Your task to perform on an android device: Open accessibility settings Image 0: 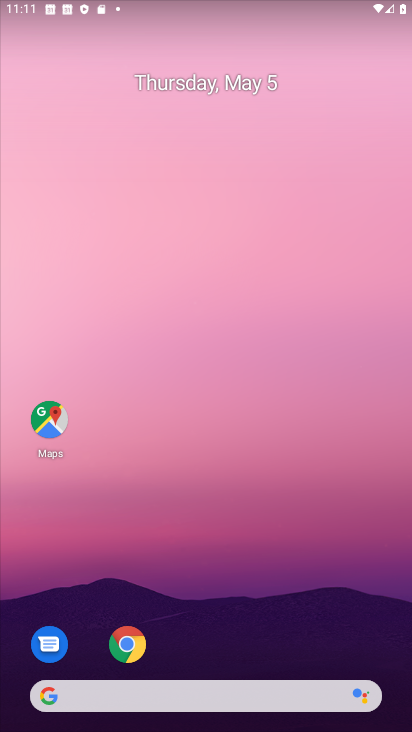
Step 0: drag from (249, 653) to (254, 127)
Your task to perform on an android device: Open accessibility settings Image 1: 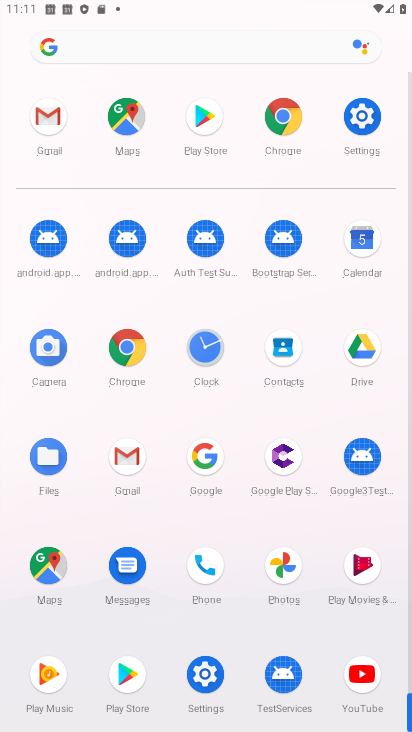
Step 1: click (206, 680)
Your task to perform on an android device: Open accessibility settings Image 2: 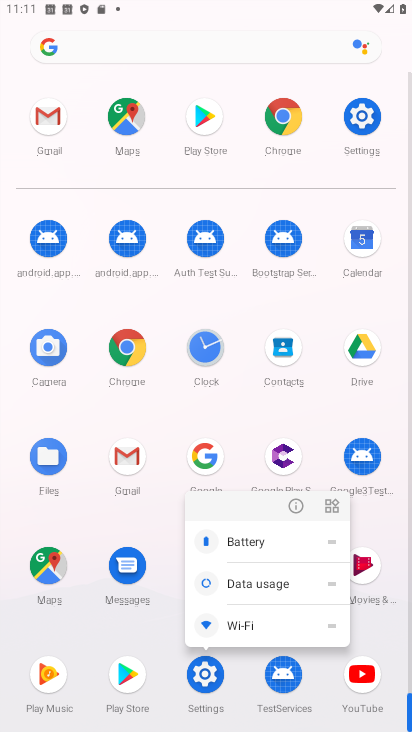
Step 2: click (284, 507)
Your task to perform on an android device: Open accessibility settings Image 3: 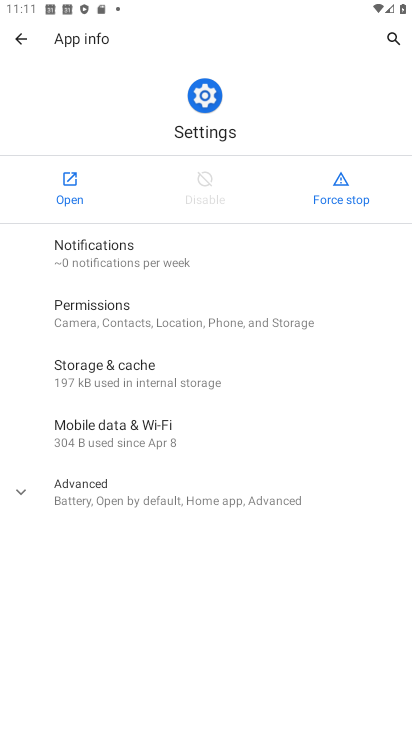
Step 3: drag from (175, 574) to (210, 249)
Your task to perform on an android device: Open accessibility settings Image 4: 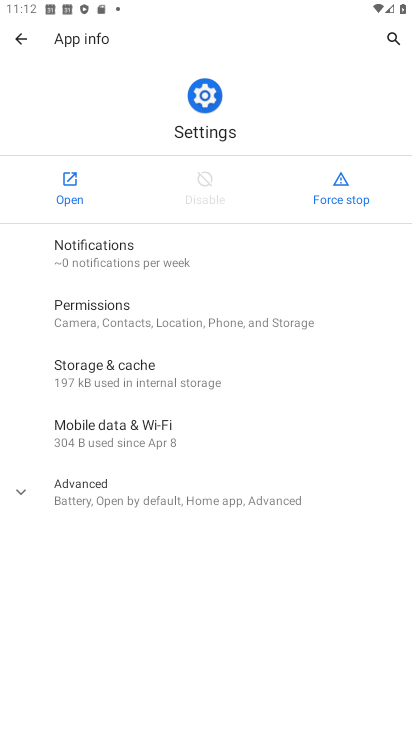
Step 4: click (67, 189)
Your task to perform on an android device: Open accessibility settings Image 5: 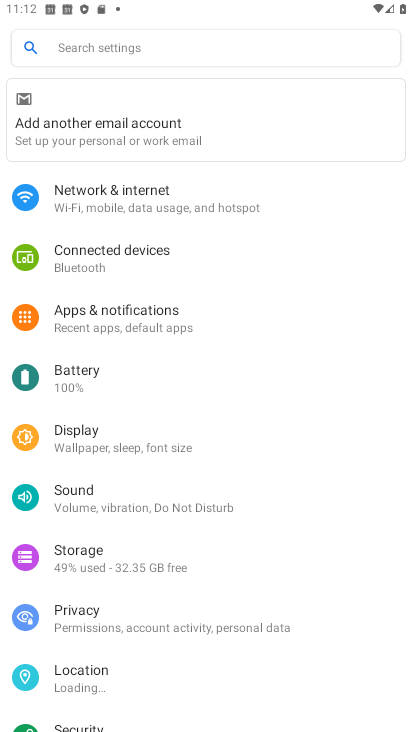
Step 5: drag from (160, 352) to (268, 700)
Your task to perform on an android device: Open accessibility settings Image 6: 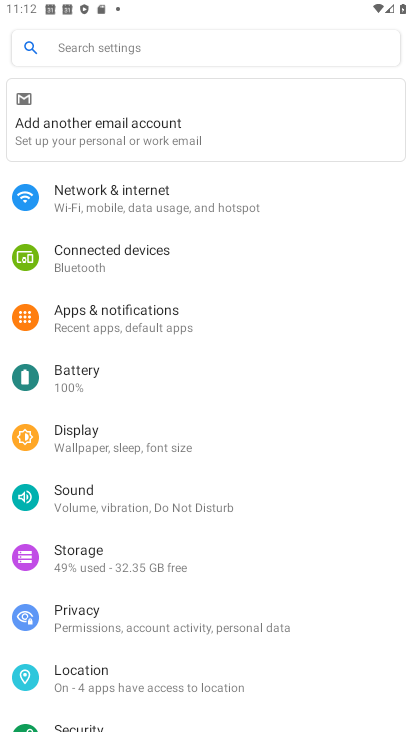
Step 6: drag from (148, 628) to (164, 227)
Your task to perform on an android device: Open accessibility settings Image 7: 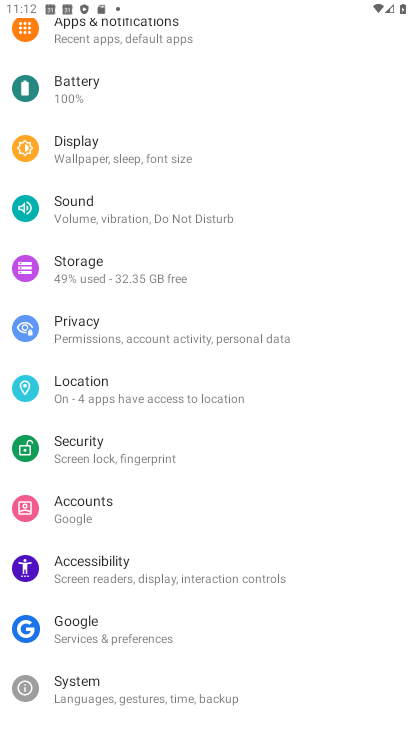
Step 7: drag from (162, 618) to (170, 277)
Your task to perform on an android device: Open accessibility settings Image 8: 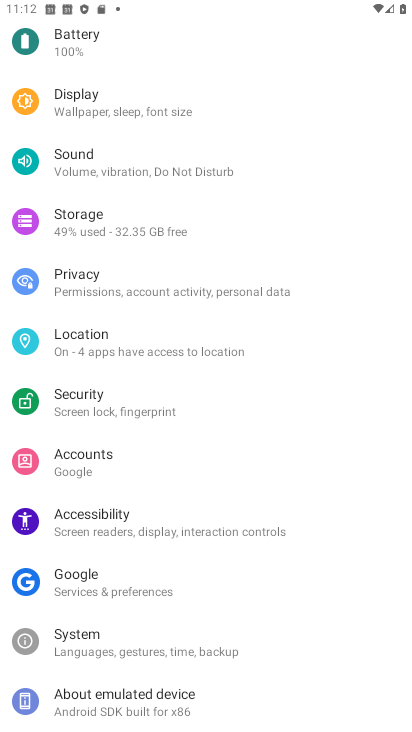
Step 8: click (119, 514)
Your task to perform on an android device: Open accessibility settings Image 9: 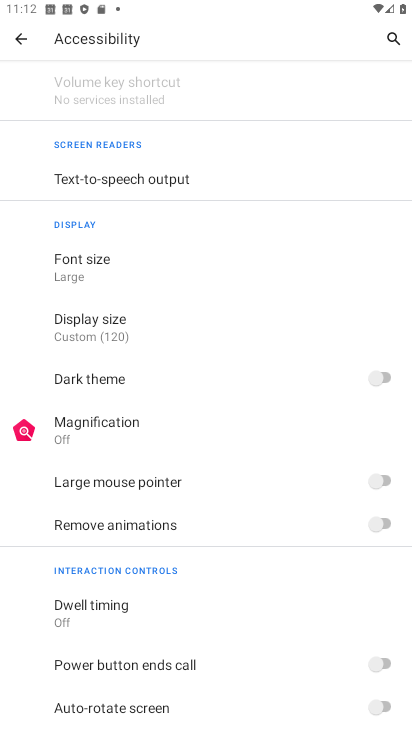
Step 9: task complete